Your task to perform on an android device: What's the weather going to be tomorrow? Image 0: 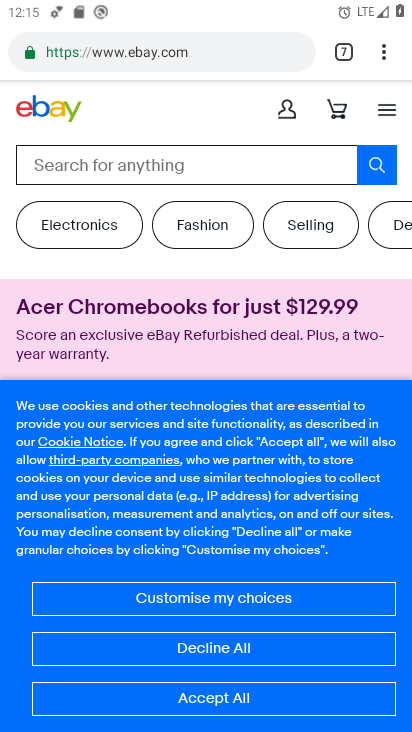
Step 0: press home button
Your task to perform on an android device: What's the weather going to be tomorrow? Image 1: 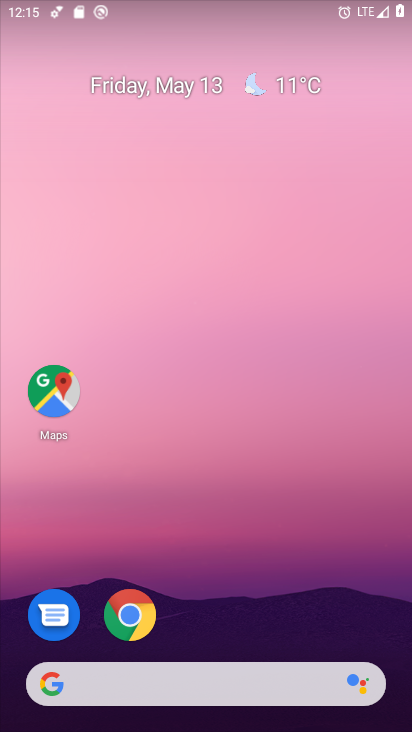
Step 1: click (298, 72)
Your task to perform on an android device: What's the weather going to be tomorrow? Image 2: 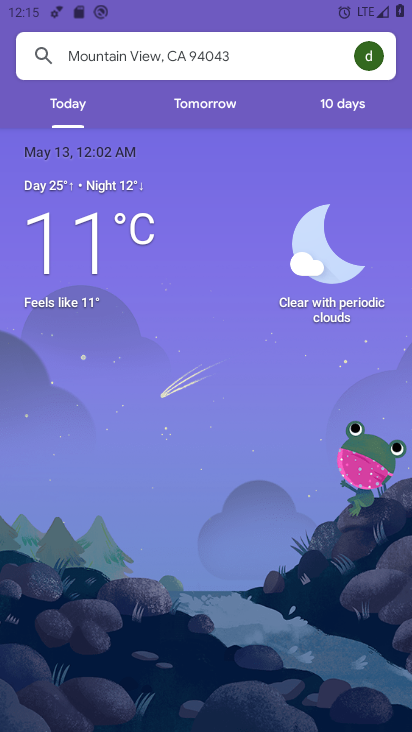
Step 2: click (196, 105)
Your task to perform on an android device: What's the weather going to be tomorrow? Image 3: 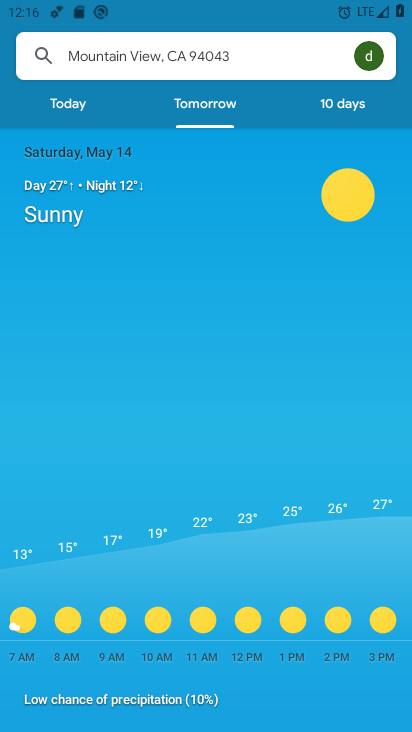
Step 3: task complete